Your task to perform on an android device: Open Google Maps Image 0: 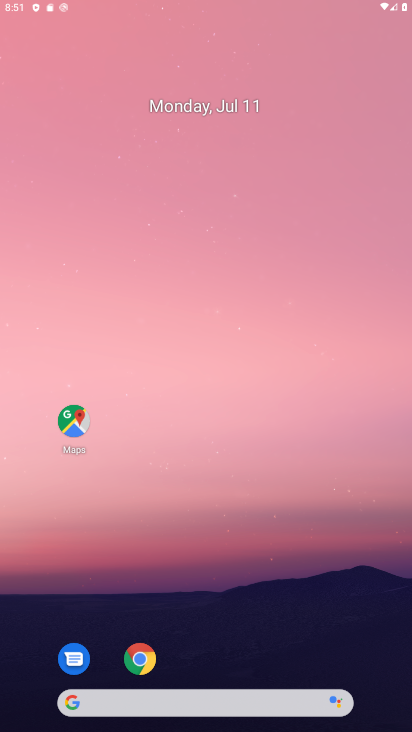
Step 0: drag from (190, 458) to (192, 129)
Your task to perform on an android device: Open Google Maps Image 1: 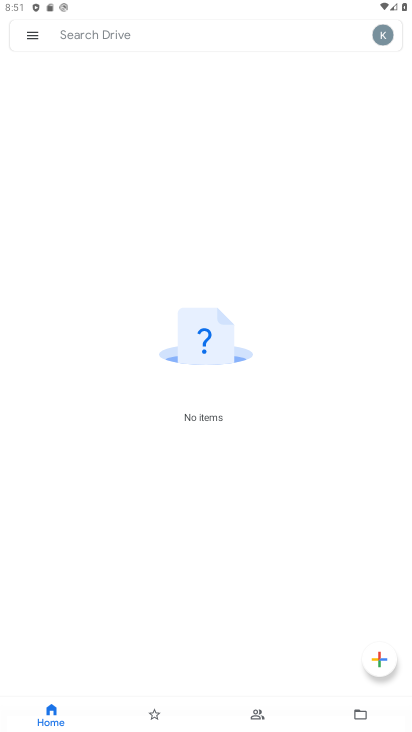
Step 1: press home button
Your task to perform on an android device: Open Google Maps Image 2: 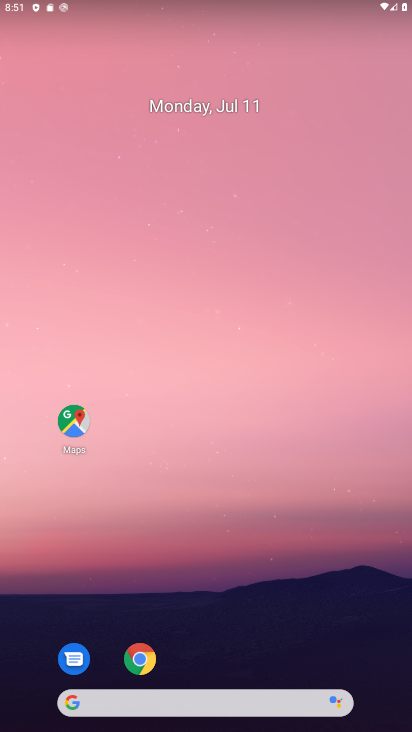
Step 2: drag from (222, 725) to (218, 249)
Your task to perform on an android device: Open Google Maps Image 3: 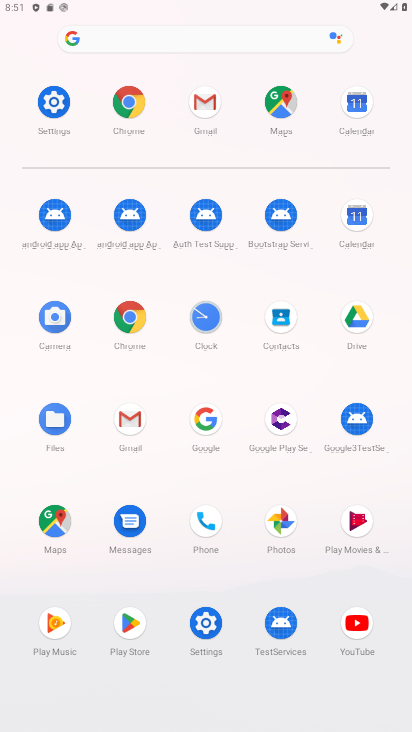
Step 3: click (51, 528)
Your task to perform on an android device: Open Google Maps Image 4: 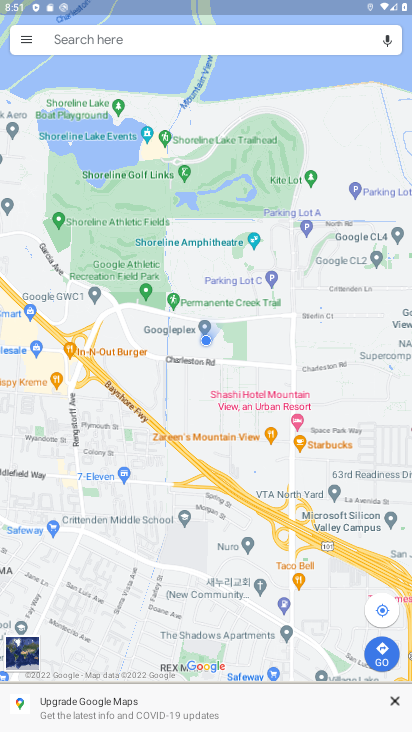
Step 4: task complete